Your task to perform on an android device: toggle location history Image 0: 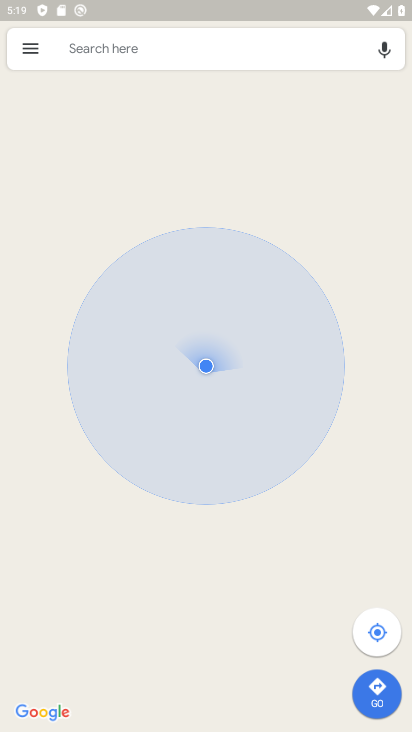
Step 0: press home button
Your task to perform on an android device: toggle location history Image 1: 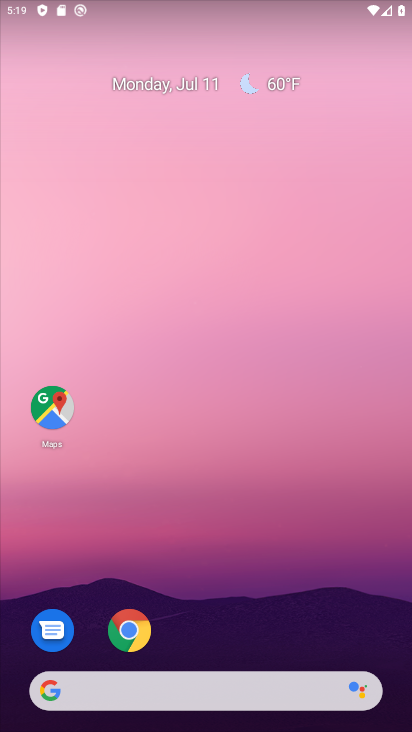
Step 1: drag from (194, 577) to (161, 71)
Your task to perform on an android device: toggle location history Image 2: 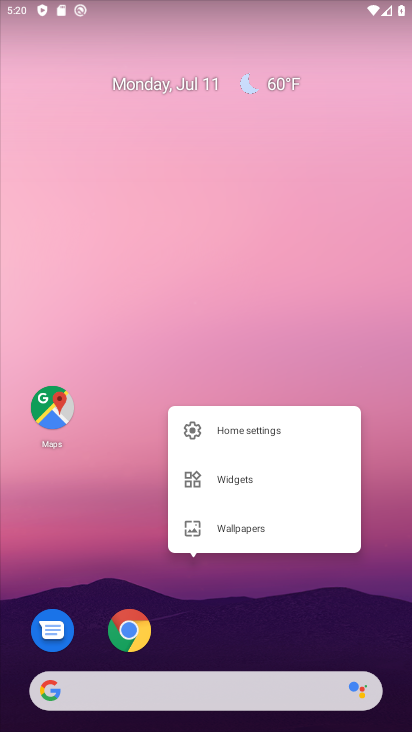
Step 2: click (183, 607)
Your task to perform on an android device: toggle location history Image 3: 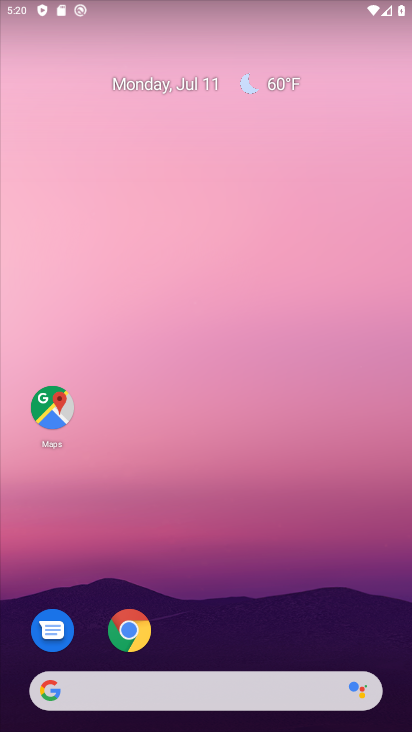
Step 3: drag from (193, 613) to (162, 0)
Your task to perform on an android device: toggle location history Image 4: 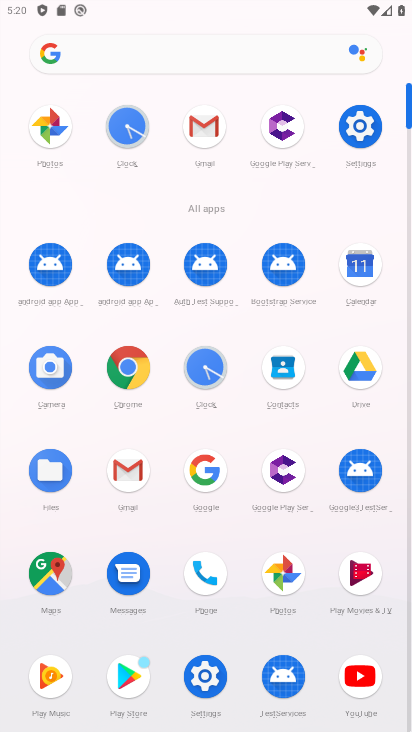
Step 4: click (356, 127)
Your task to perform on an android device: toggle location history Image 5: 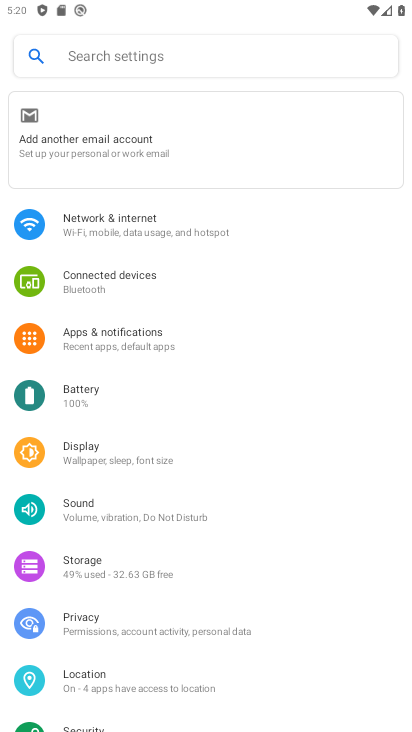
Step 5: click (64, 687)
Your task to perform on an android device: toggle location history Image 6: 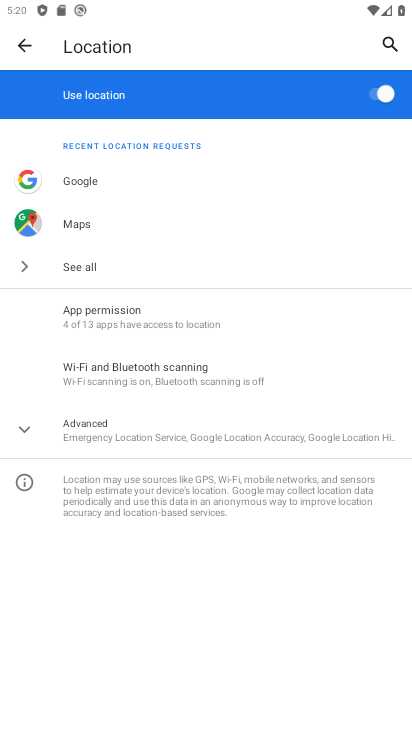
Step 6: click (184, 439)
Your task to perform on an android device: toggle location history Image 7: 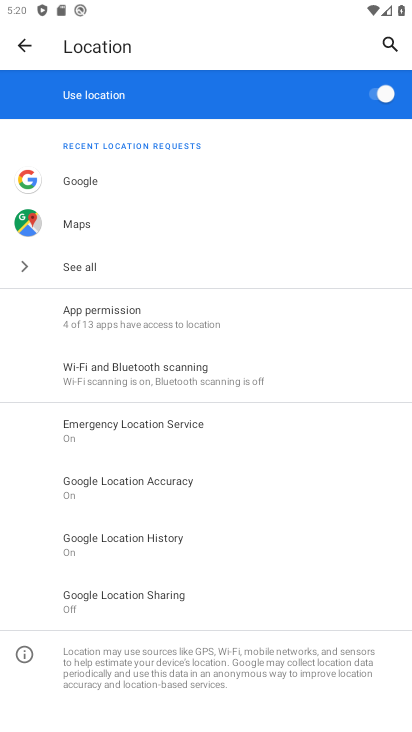
Step 7: click (83, 533)
Your task to perform on an android device: toggle location history Image 8: 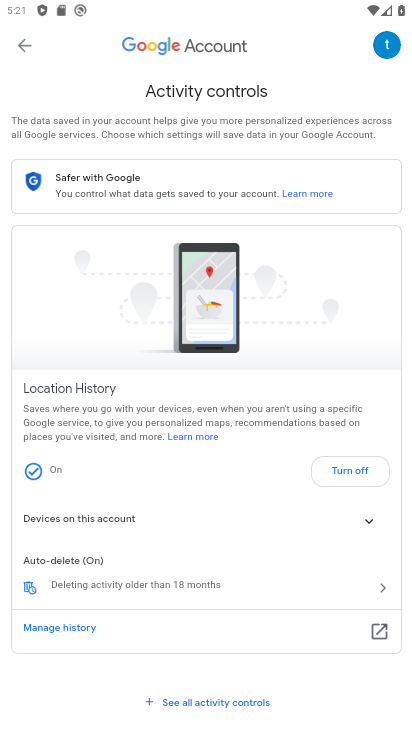
Step 8: click (351, 464)
Your task to perform on an android device: toggle location history Image 9: 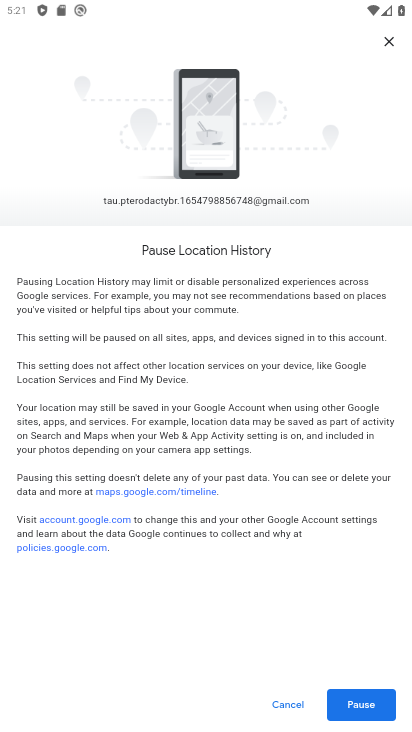
Step 9: click (351, 709)
Your task to perform on an android device: toggle location history Image 10: 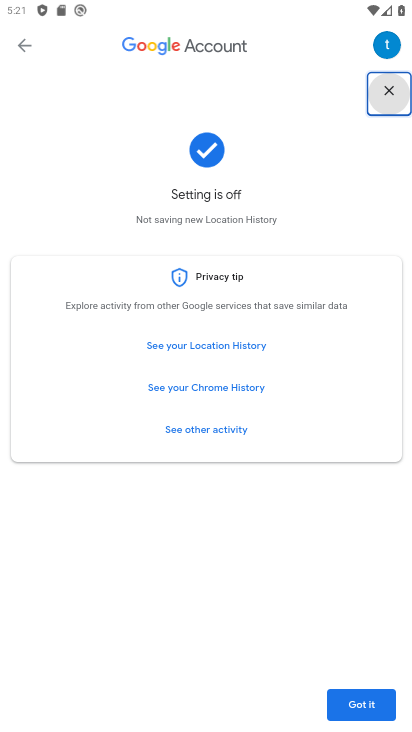
Step 10: click (351, 709)
Your task to perform on an android device: toggle location history Image 11: 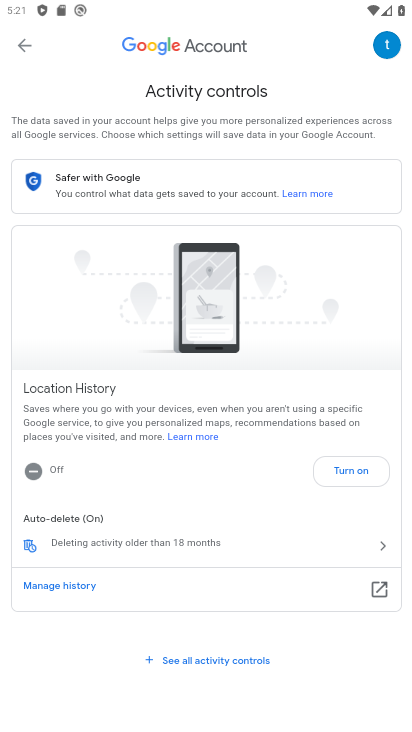
Step 11: task complete